Your task to perform on an android device: change the clock display to analog Image 0: 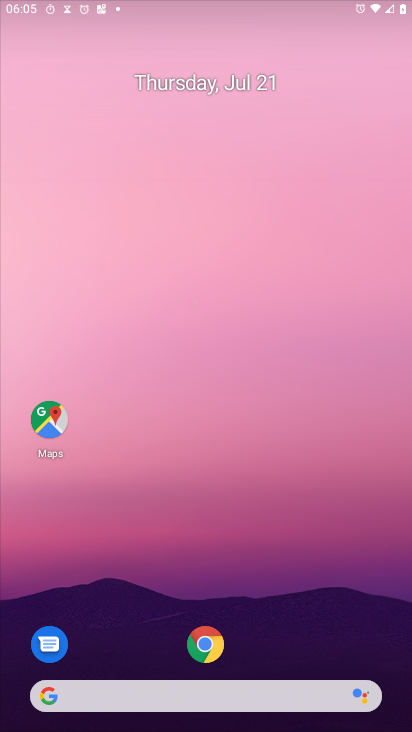
Step 0: press home button
Your task to perform on an android device: change the clock display to analog Image 1: 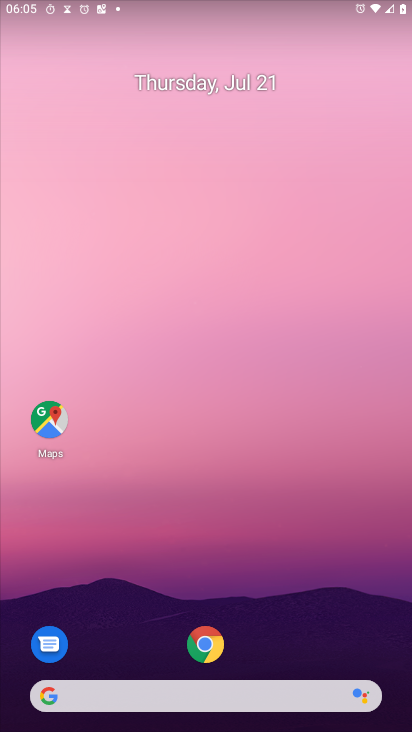
Step 1: drag from (296, 618) to (292, 116)
Your task to perform on an android device: change the clock display to analog Image 2: 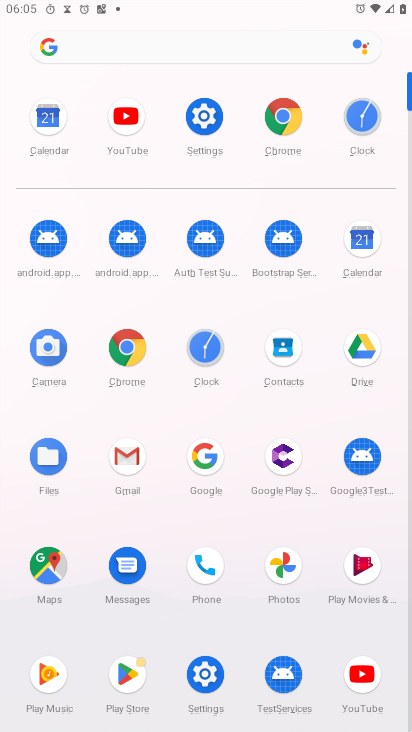
Step 2: click (367, 120)
Your task to perform on an android device: change the clock display to analog Image 3: 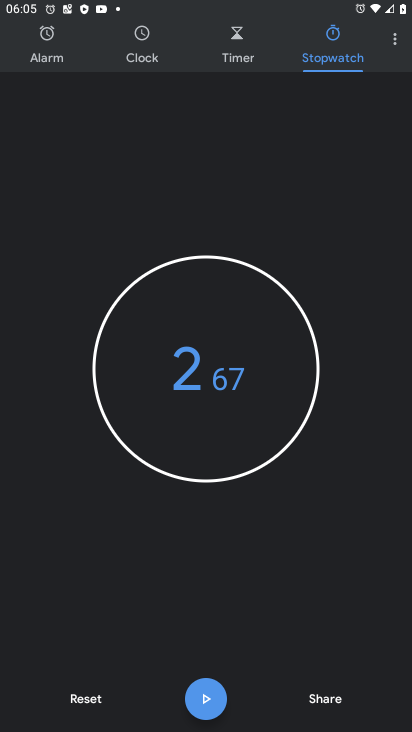
Step 3: click (386, 36)
Your task to perform on an android device: change the clock display to analog Image 4: 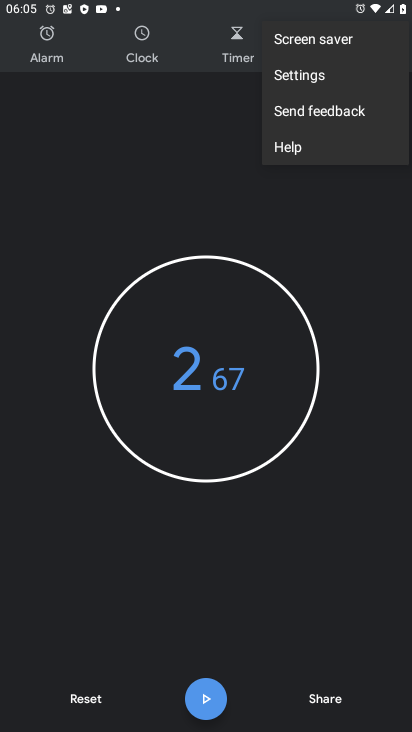
Step 4: click (293, 67)
Your task to perform on an android device: change the clock display to analog Image 5: 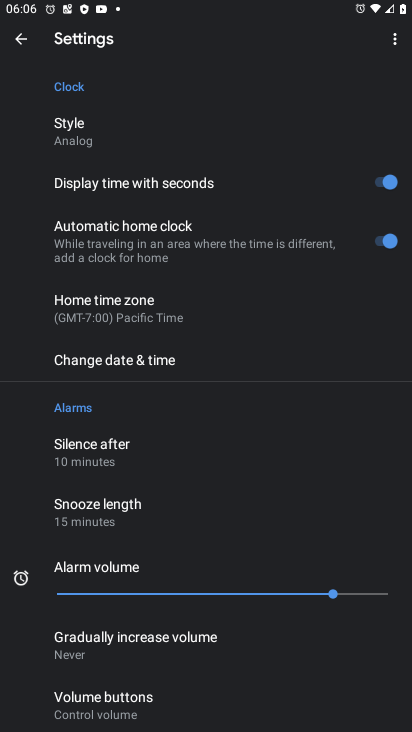
Step 5: task complete